Your task to perform on an android device: Check the weather Image 0: 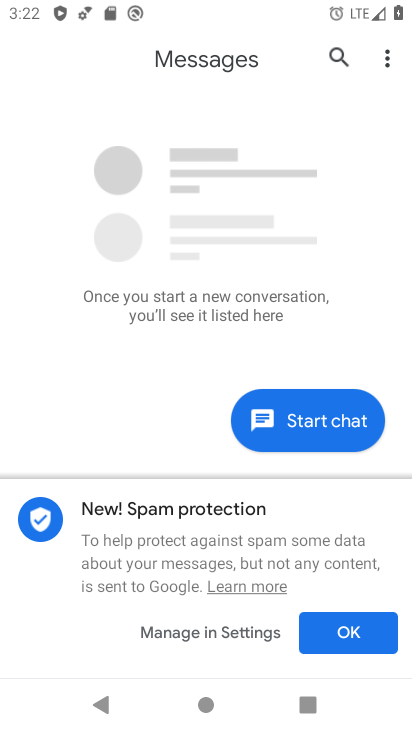
Step 0: press home button
Your task to perform on an android device: Check the weather Image 1: 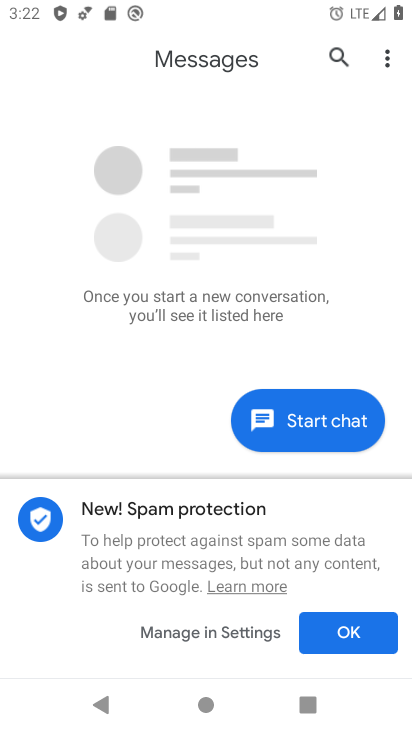
Step 1: press home button
Your task to perform on an android device: Check the weather Image 2: 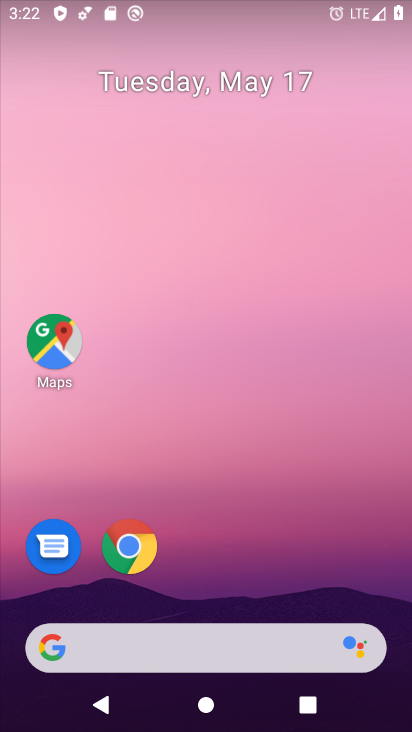
Step 2: click (125, 569)
Your task to perform on an android device: Check the weather Image 3: 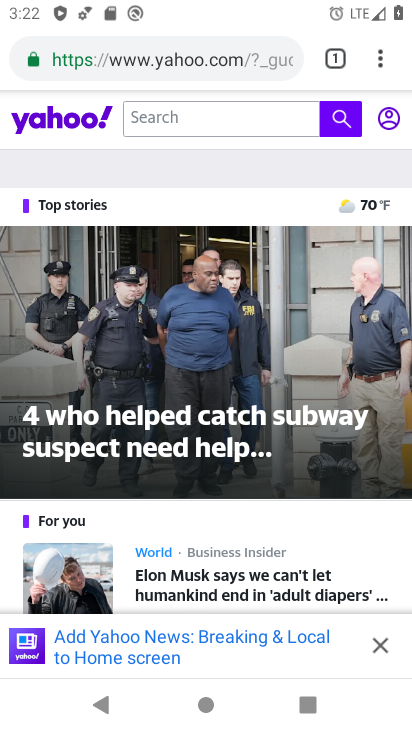
Step 3: click (121, 60)
Your task to perform on an android device: Check the weather Image 4: 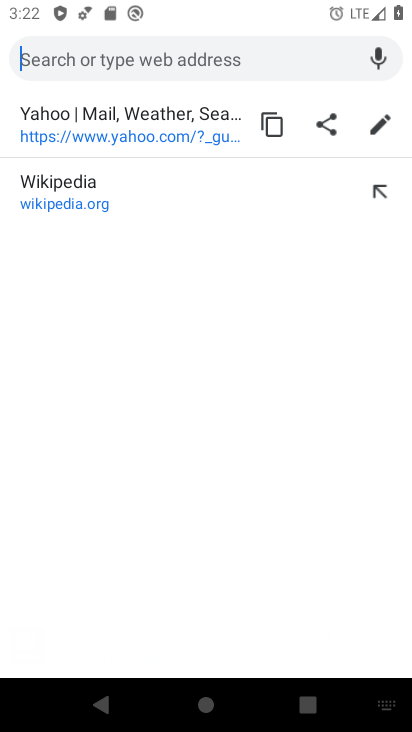
Step 4: type " weather"
Your task to perform on an android device: Check the weather Image 5: 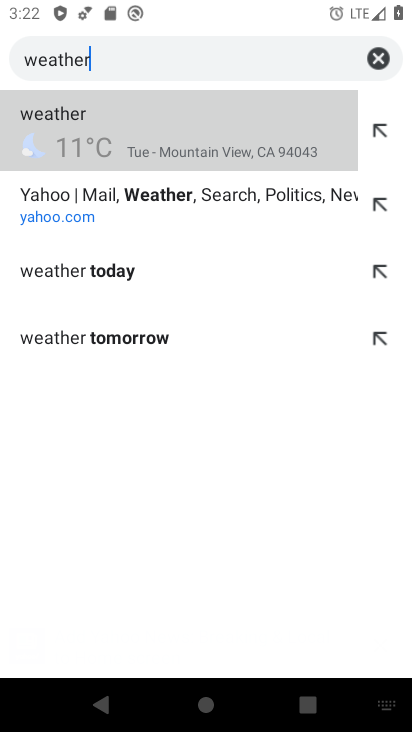
Step 5: click (331, 128)
Your task to perform on an android device: Check the weather Image 6: 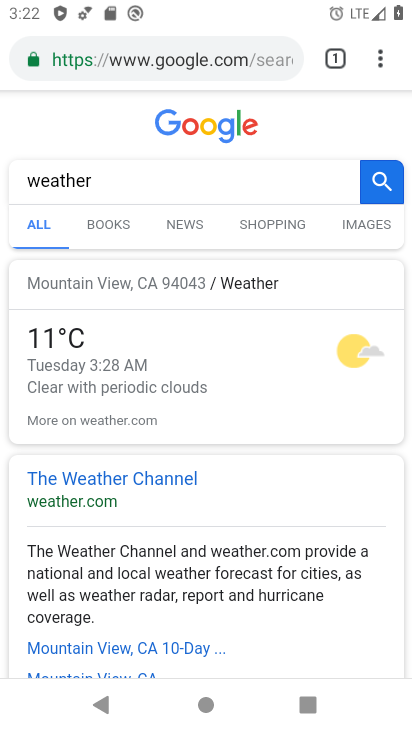
Step 6: task complete